Your task to perform on an android device: Show me productivity apps on the Play Store Image 0: 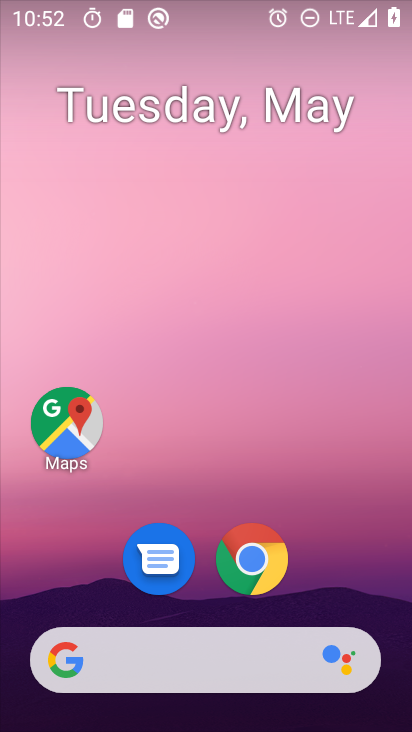
Step 0: click (400, 653)
Your task to perform on an android device: Show me productivity apps on the Play Store Image 1: 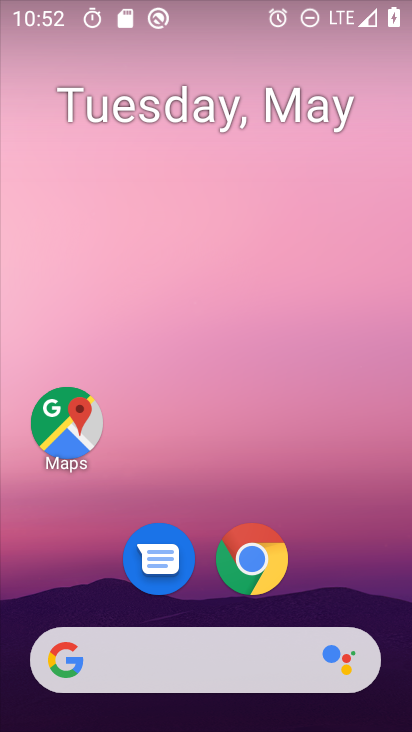
Step 1: drag from (379, 524) to (231, 26)
Your task to perform on an android device: Show me productivity apps on the Play Store Image 2: 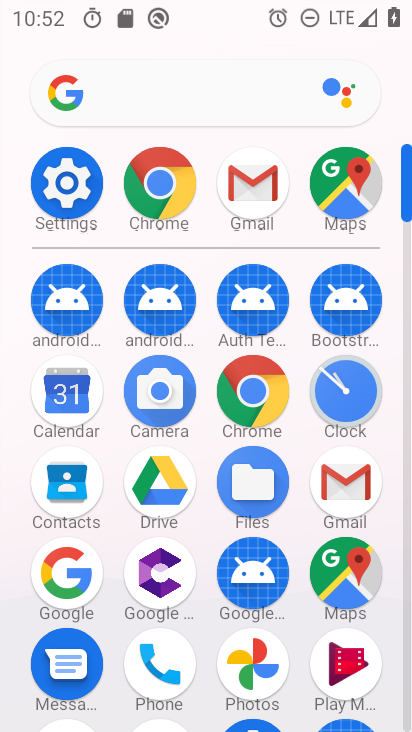
Step 2: drag from (214, 668) to (210, 219)
Your task to perform on an android device: Show me productivity apps on the Play Store Image 3: 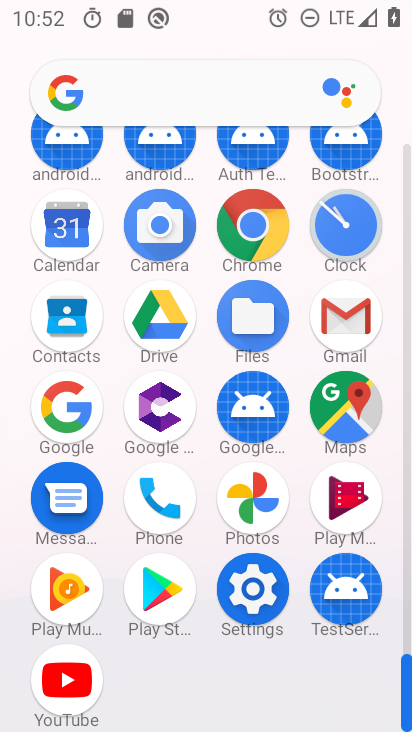
Step 3: click (170, 609)
Your task to perform on an android device: Show me productivity apps on the Play Store Image 4: 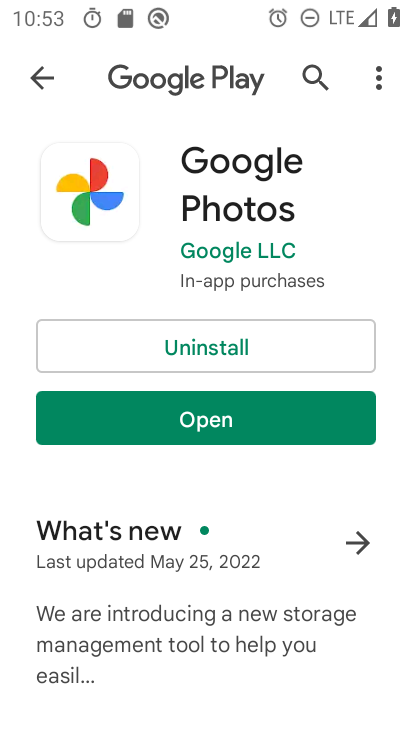
Step 4: press back button
Your task to perform on an android device: Show me productivity apps on the Play Store Image 5: 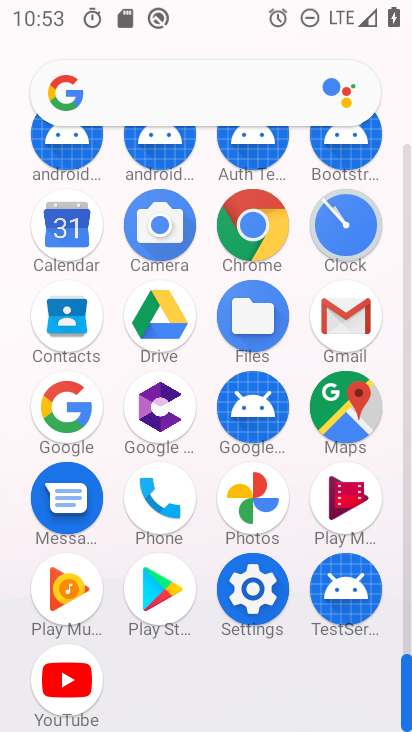
Step 5: click (149, 614)
Your task to perform on an android device: Show me productivity apps on the Play Store Image 6: 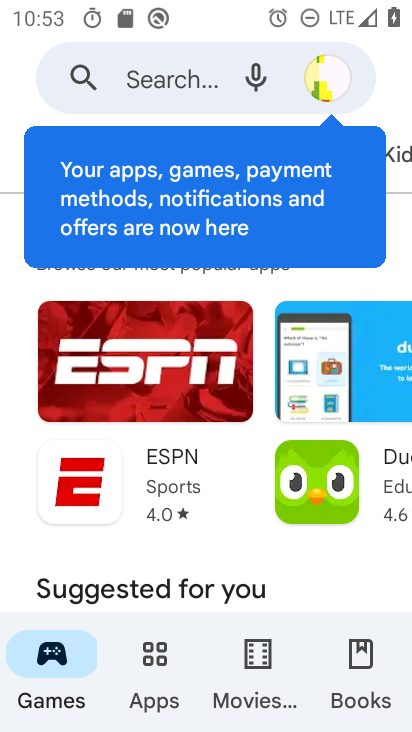
Step 6: click (147, 667)
Your task to perform on an android device: Show me productivity apps on the Play Store Image 7: 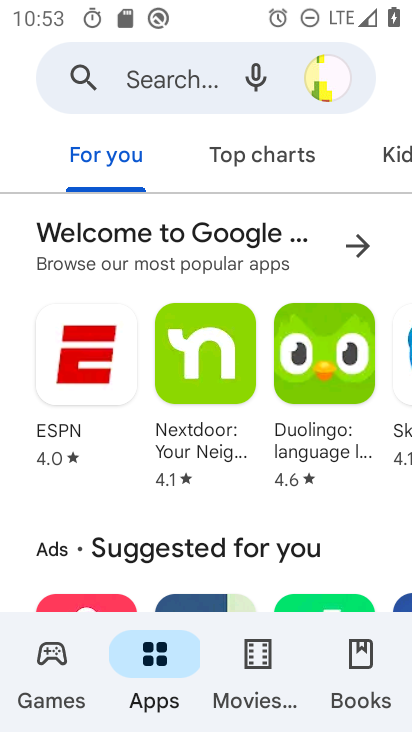
Step 7: task complete